Your task to perform on an android device: turn on javascript in the chrome app Image 0: 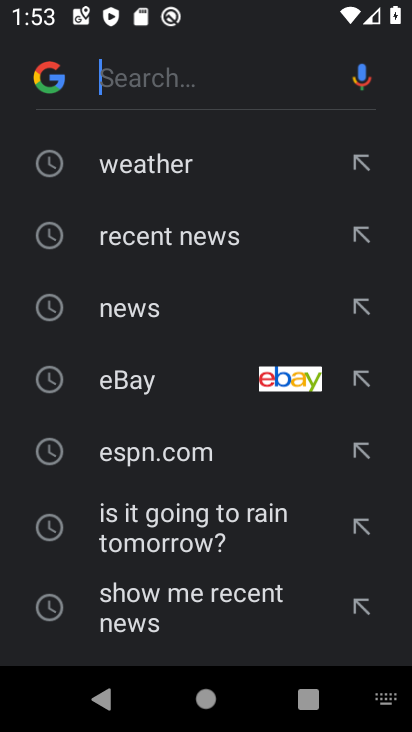
Step 0: press back button
Your task to perform on an android device: turn on javascript in the chrome app Image 1: 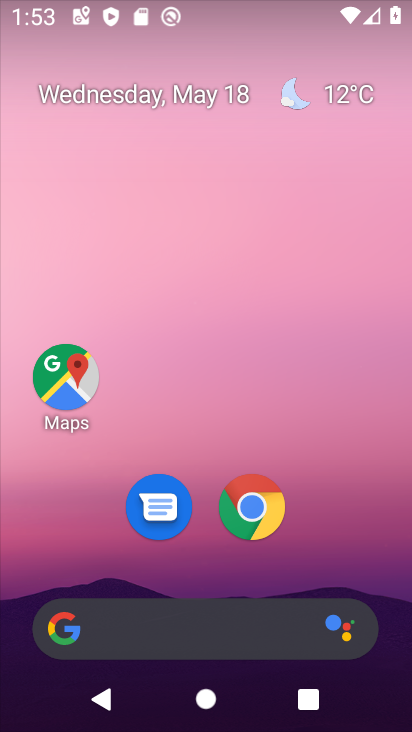
Step 1: click (391, 383)
Your task to perform on an android device: turn on javascript in the chrome app Image 2: 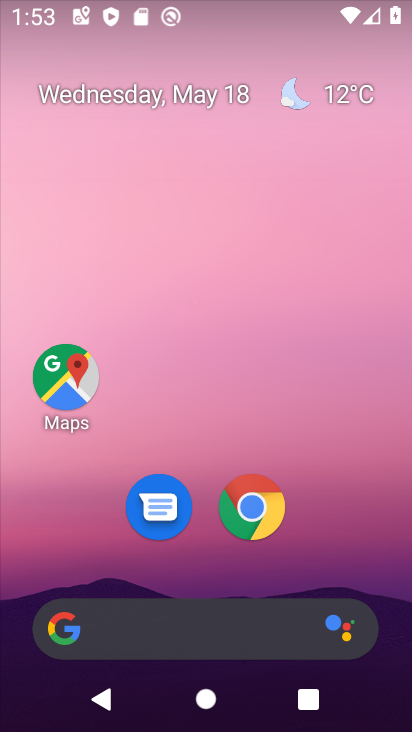
Step 2: drag from (398, 690) to (385, 337)
Your task to perform on an android device: turn on javascript in the chrome app Image 3: 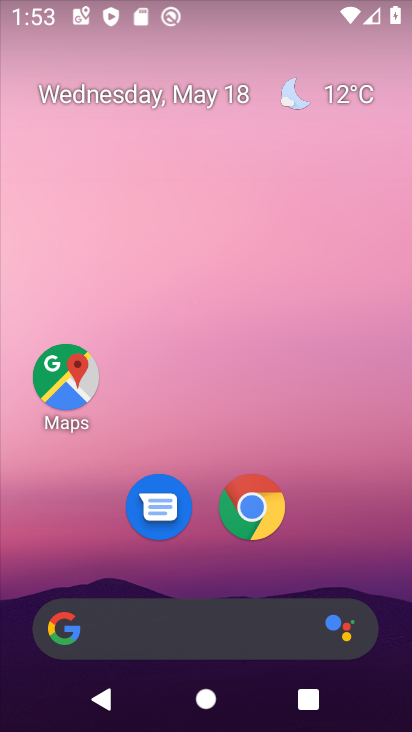
Step 3: click (252, 497)
Your task to perform on an android device: turn on javascript in the chrome app Image 4: 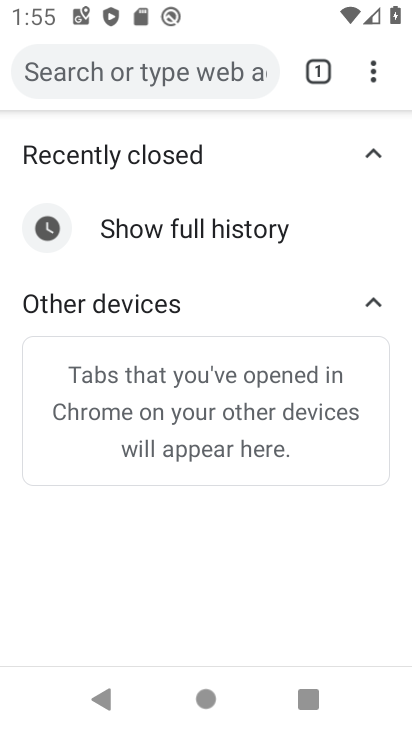
Step 4: click (367, 72)
Your task to perform on an android device: turn on javascript in the chrome app Image 5: 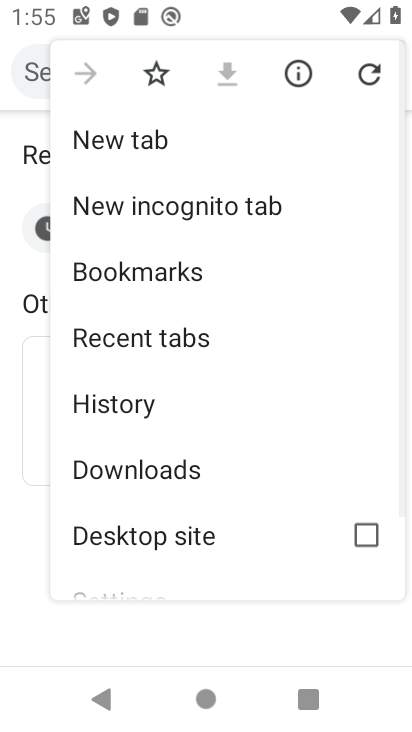
Step 5: drag from (278, 518) to (282, 238)
Your task to perform on an android device: turn on javascript in the chrome app Image 6: 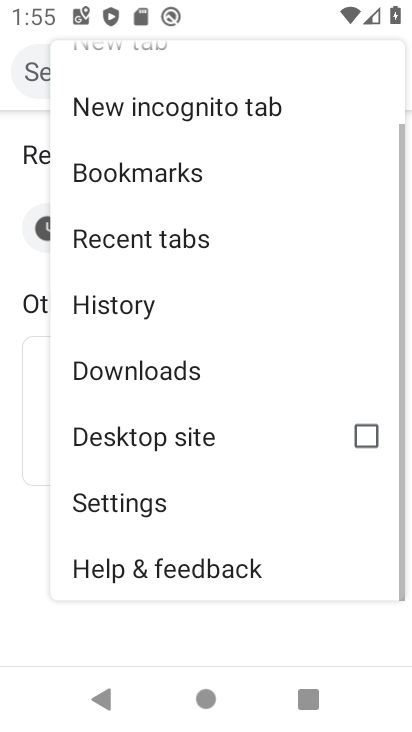
Step 6: click (128, 508)
Your task to perform on an android device: turn on javascript in the chrome app Image 7: 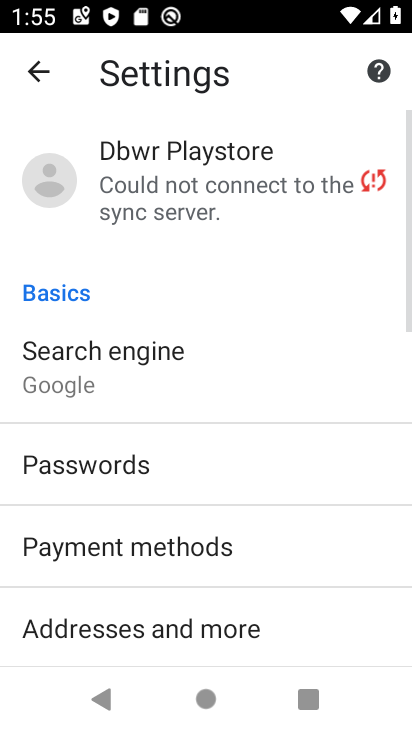
Step 7: drag from (307, 646) to (318, 359)
Your task to perform on an android device: turn on javascript in the chrome app Image 8: 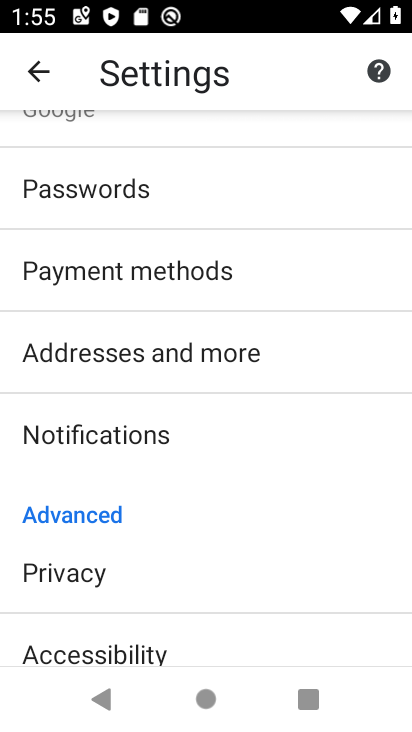
Step 8: drag from (270, 631) to (268, 406)
Your task to perform on an android device: turn on javascript in the chrome app Image 9: 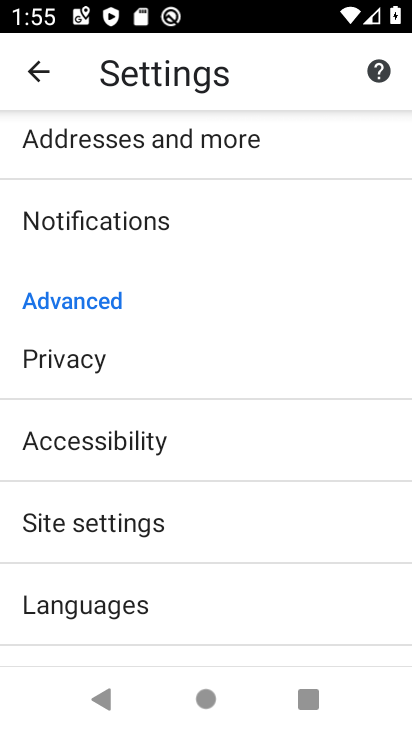
Step 9: click (90, 524)
Your task to perform on an android device: turn on javascript in the chrome app Image 10: 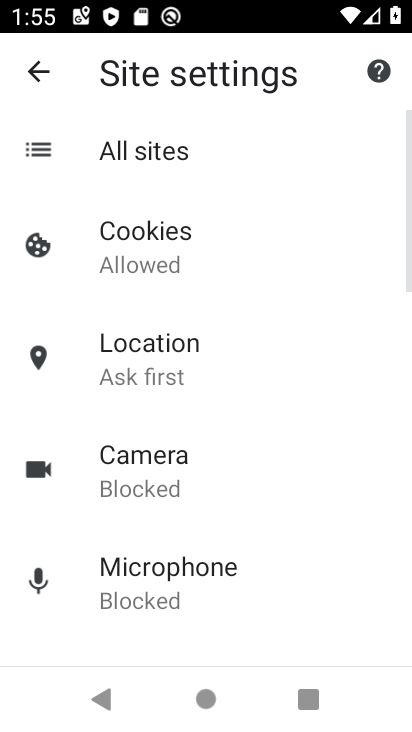
Step 10: drag from (277, 500) to (295, 329)
Your task to perform on an android device: turn on javascript in the chrome app Image 11: 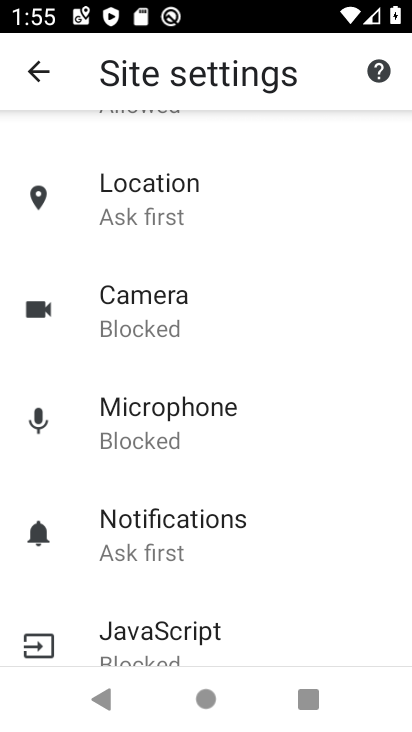
Step 11: click (147, 635)
Your task to perform on an android device: turn on javascript in the chrome app Image 12: 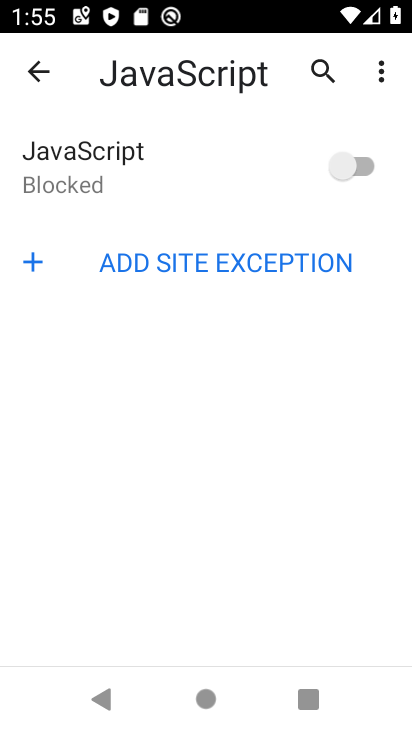
Step 12: click (354, 165)
Your task to perform on an android device: turn on javascript in the chrome app Image 13: 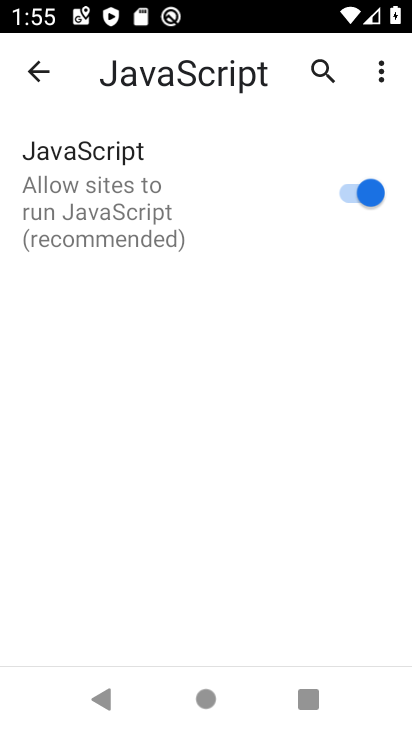
Step 13: task complete